Your task to perform on an android device: check out phone information Image 0: 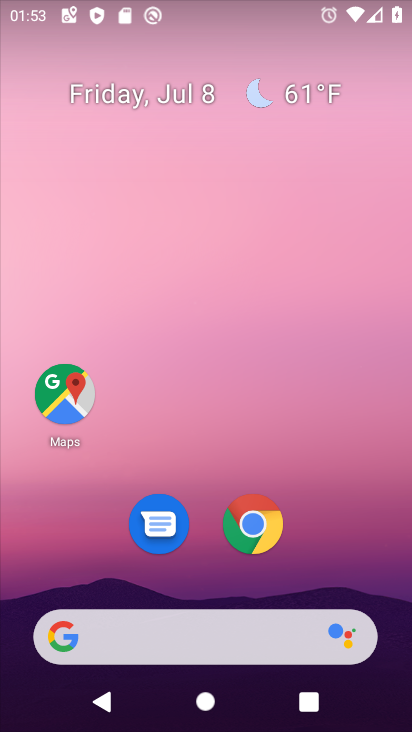
Step 0: drag from (215, 482) to (160, 14)
Your task to perform on an android device: check out phone information Image 1: 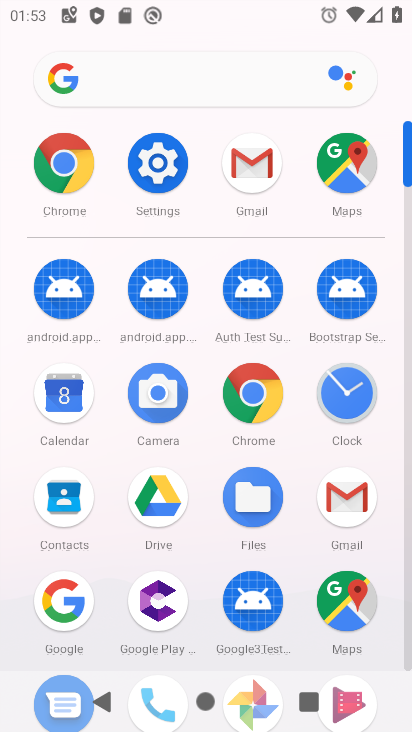
Step 1: drag from (201, 442) to (191, 207)
Your task to perform on an android device: check out phone information Image 2: 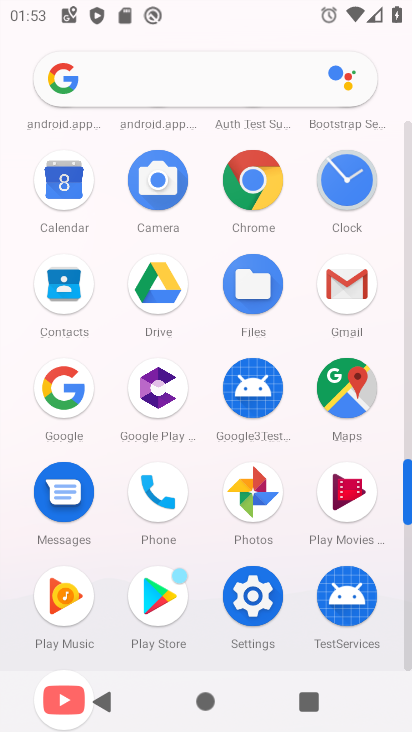
Step 2: click (168, 482)
Your task to perform on an android device: check out phone information Image 3: 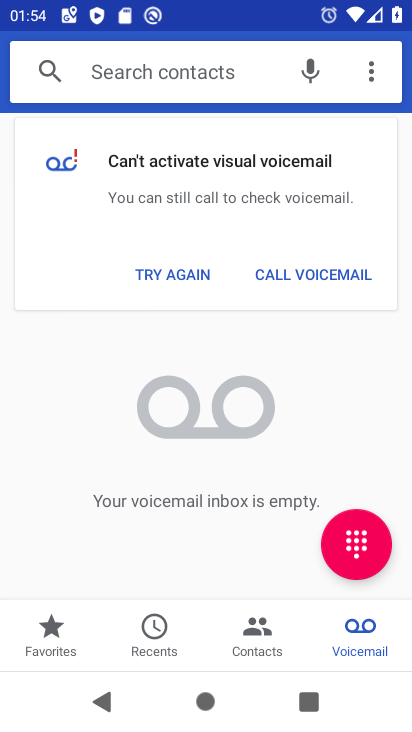
Step 3: click (372, 77)
Your task to perform on an android device: check out phone information Image 4: 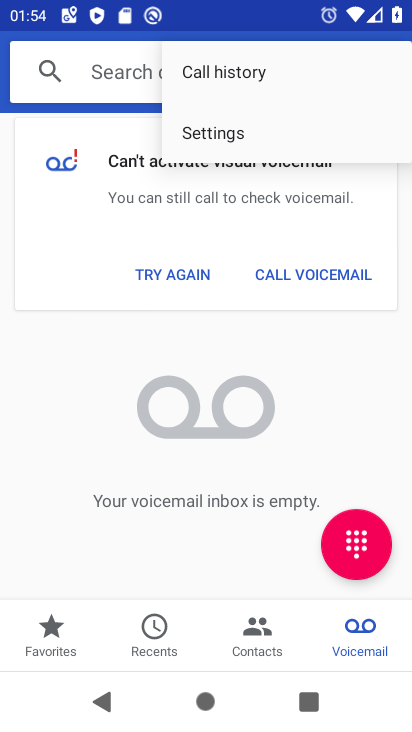
Step 4: click (298, 146)
Your task to perform on an android device: check out phone information Image 5: 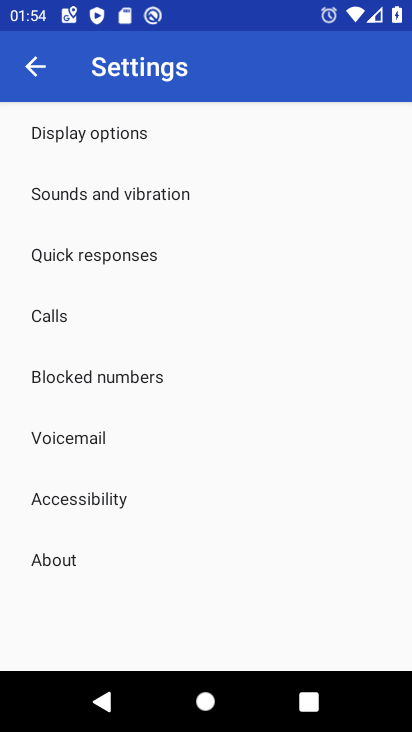
Step 5: click (56, 561)
Your task to perform on an android device: check out phone information Image 6: 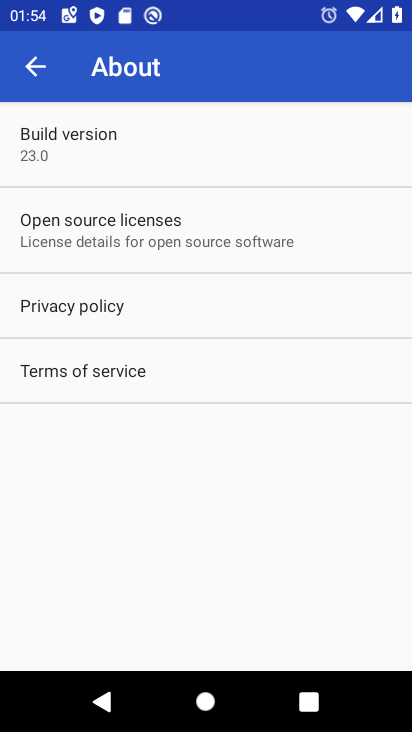
Step 6: task complete